Your task to perform on an android device: open chrome and create a bookmark for the current page Image 0: 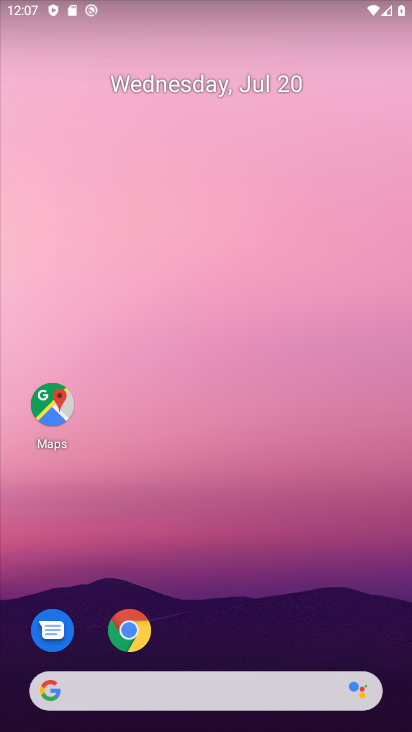
Step 0: click (131, 634)
Your task to perform on an android device: open chrome and create a bookmark for the current page Image 1: 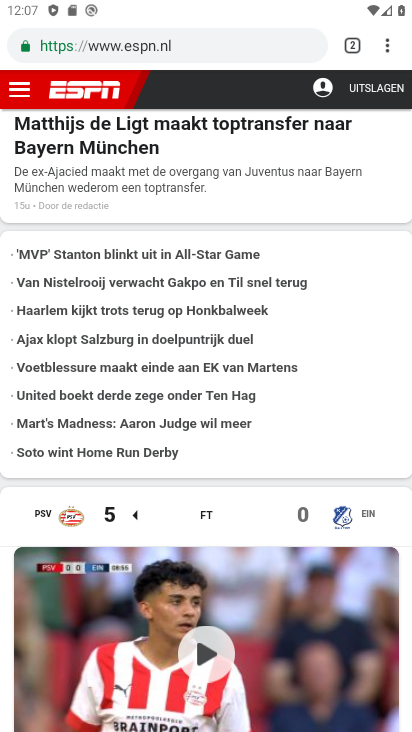
Step 1: click (390, 41)
Your task to perform on an android device: open chrome and create a bookmark for the current page Image 2: 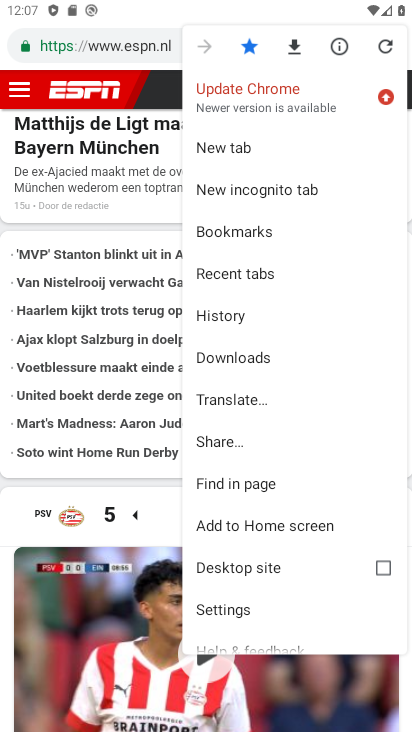
Step 2: task complete